Your task to perform on an android device: Go to eBay Image 0: 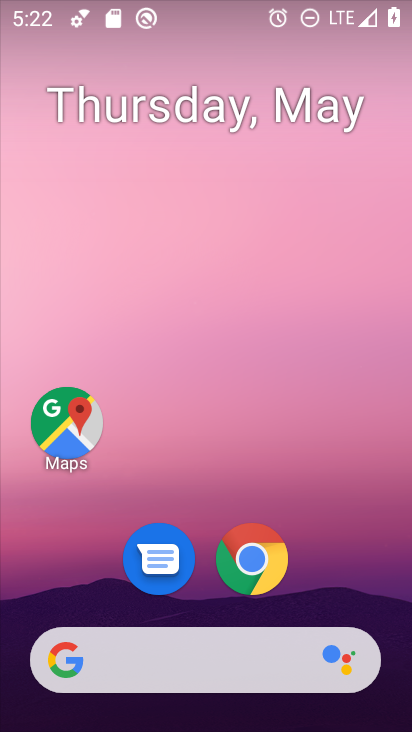
Step 0: click (235, 562)
Your task to perform on an android device: Go to eBay Image 1: 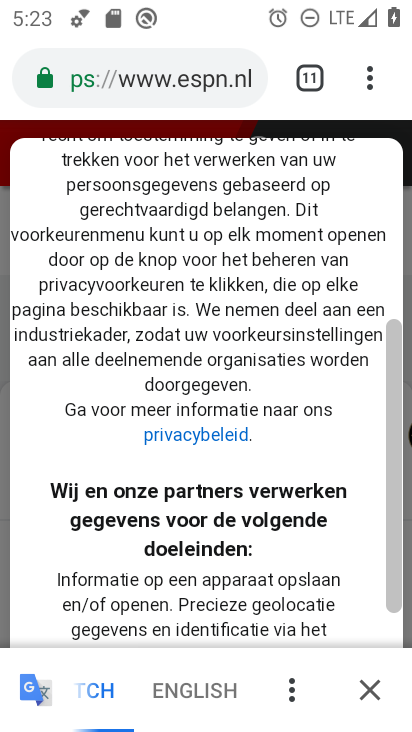
Step 1: click (313, 75)
Your task to perform on an android device: Go to eBay Image 2: 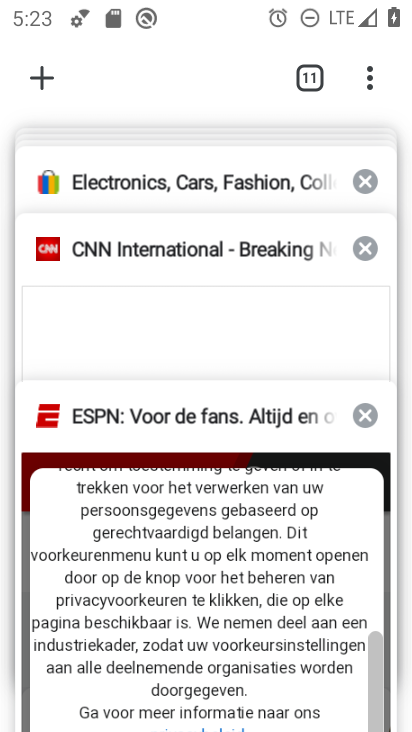
Step 2: click (174, 173)
Your task to perform on an android device: Go to eBay Image 3: 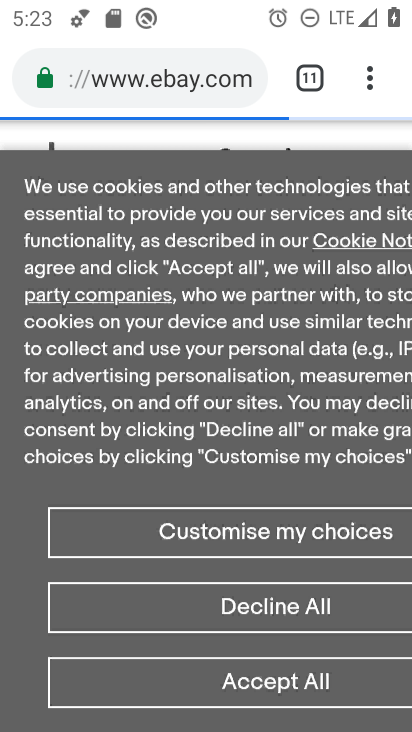
Step 3: task complete